Your task to perform on an android device: move a message to another label in the gmail app Image 0: 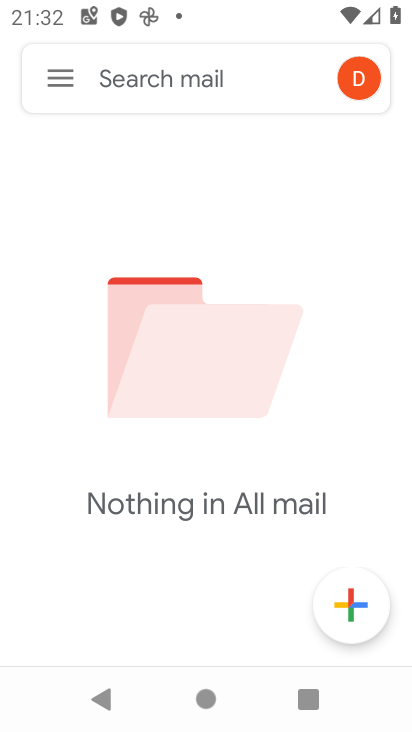
Step 0: press home button
Your task to perform on an android device: move a message to another label in the gmail app Image 1: 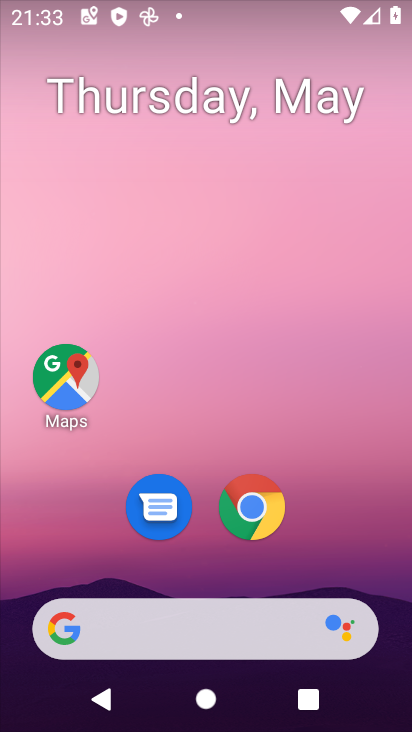
Step 1: drag from (289, 667) to (257, 270)
Your task to perform on an android device: move a message to another label in the gmail app Image 2: 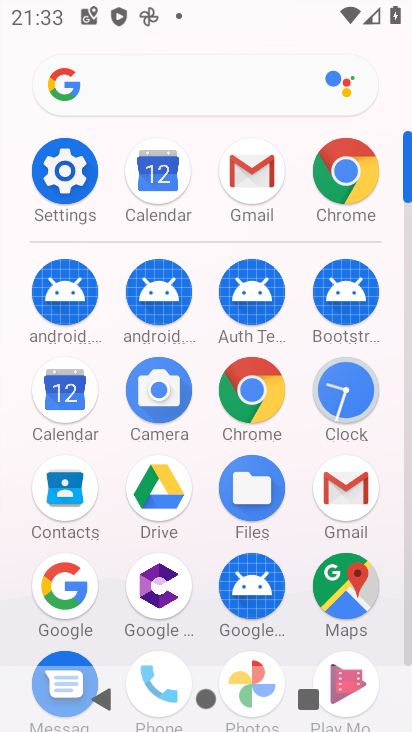
Step 2: click (237, 174)
Your task to perform on an android device: move a message to another label in the gmail app Image 3: 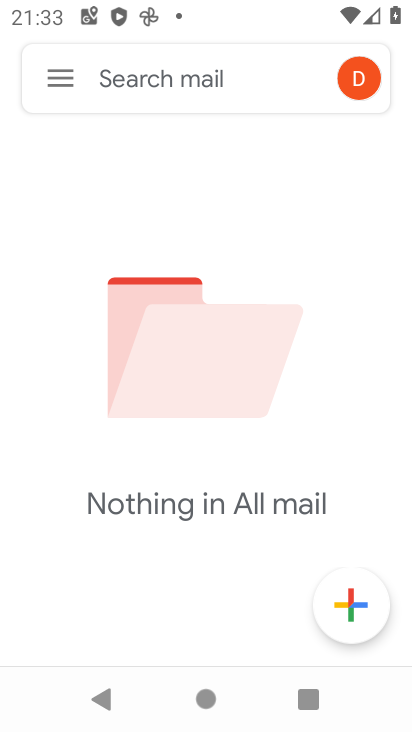
Step 3: click (71, 79)
Your task to perform on an android device: move a message to another label in the gmail app Image 4: 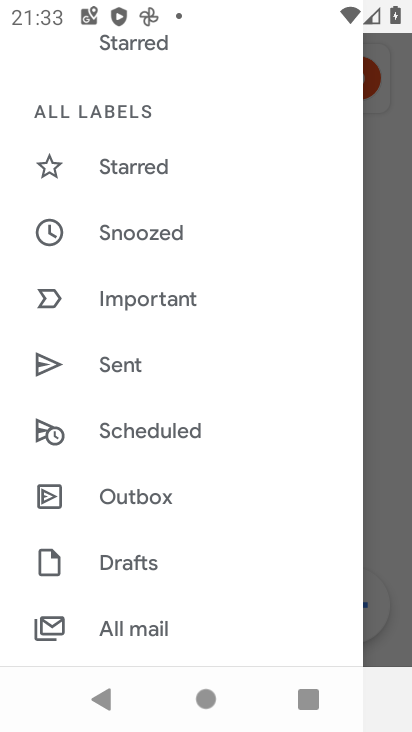
Step 4: drag from (203, 561) to (260, 218)
Your task to perform on an android device: move a message to another label in the gmail app Image 5: 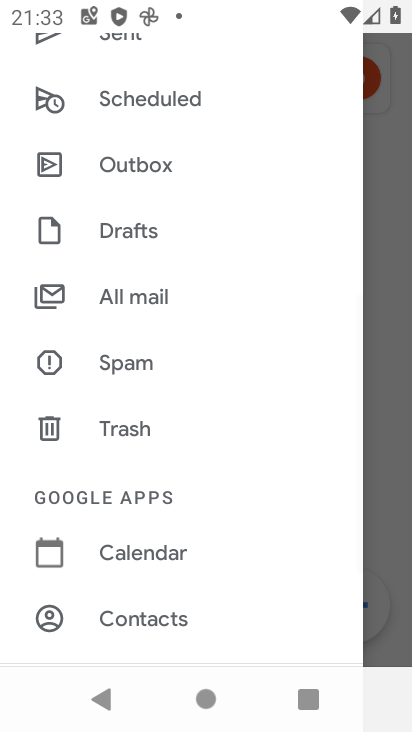
Step 5: drag from (187, 574) to (222, 331)
Your task to perform on an android device: move a message to another label in the gmail app Image 6: 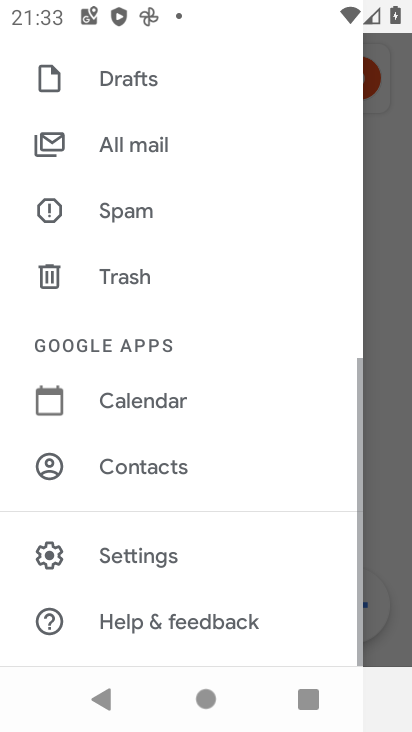
Step 6: click (161, 550)
Your task to perform on an android device: move a message to another label in the gmail app Image 7: 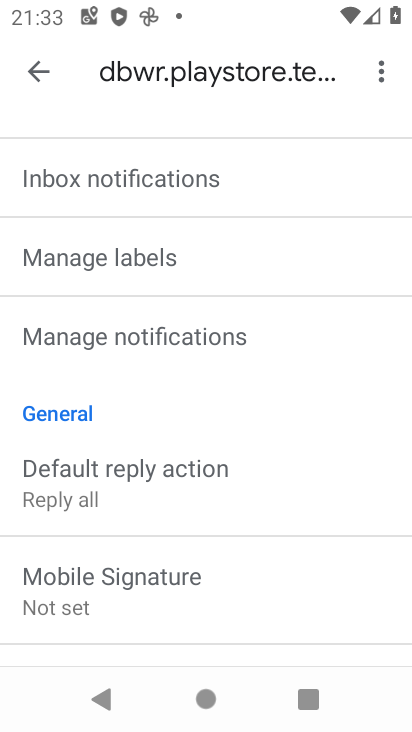
Step 7: drag from (157, 575) to (211, 485)
Your task to perform on an android device: move a message to another label in the gmail app Image 8: 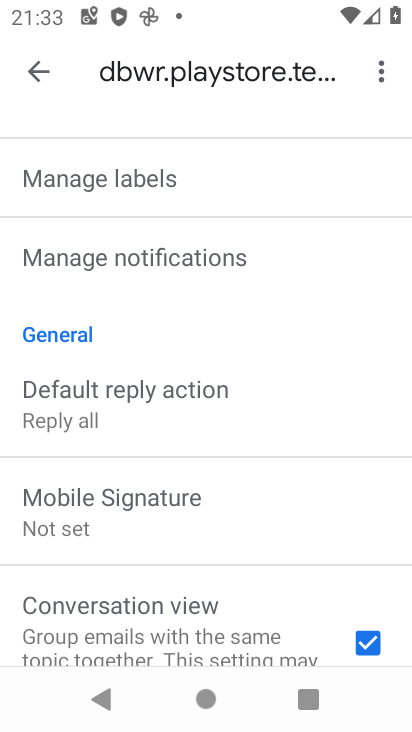
Step 8: click (128, 186)
Your task to perform on an android device: move a message to another label in the gmail app Image 9: 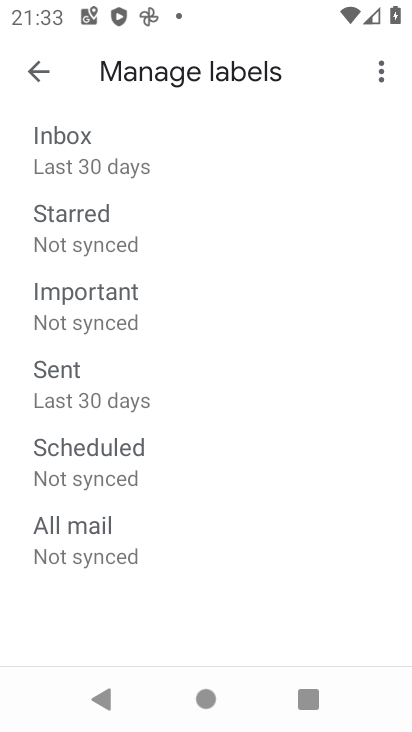
Step 9: click (119, 309)
Your task to perform on an android device: move a message to another label in the gmail app Image 10: 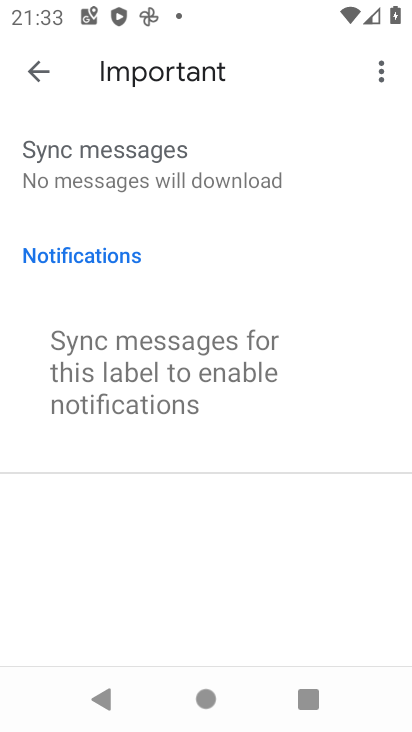
Step 10: task complete